Your task to perform on an android device: Go to privacy settings Image 0: 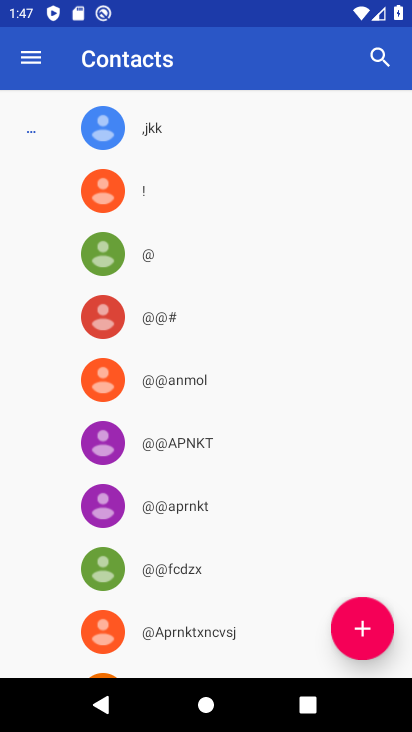
Step 0: press back button
Your task to perform on an android device: Go to privacy settings Image 1: 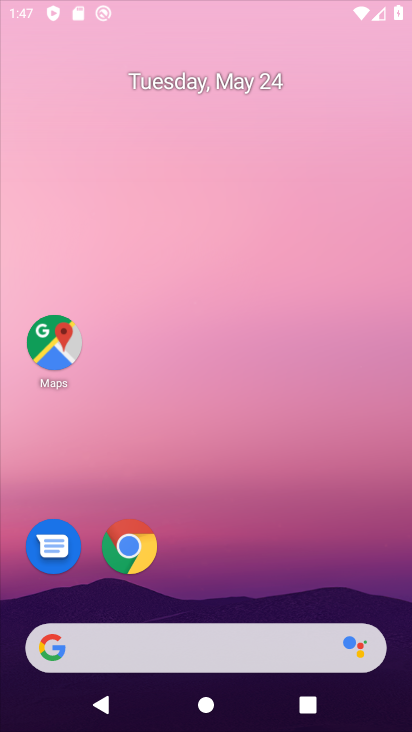
Step 1: press home button
Your task to perform on an android device: Go to privacy settings Image 2: 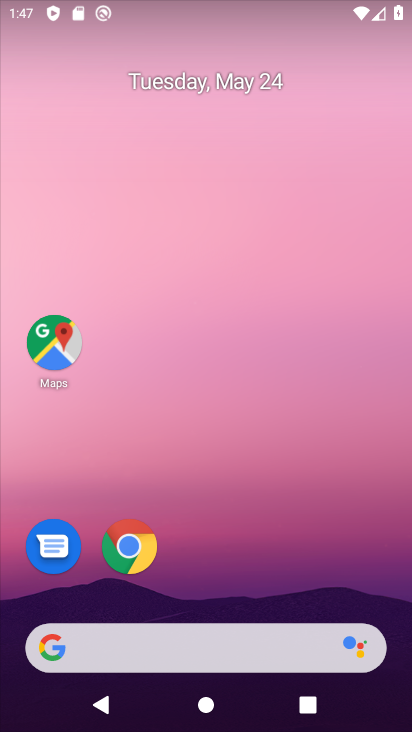
Step 2: click (119, 550)
Your task to perform on an android device: Go to privacy settings Image 3: 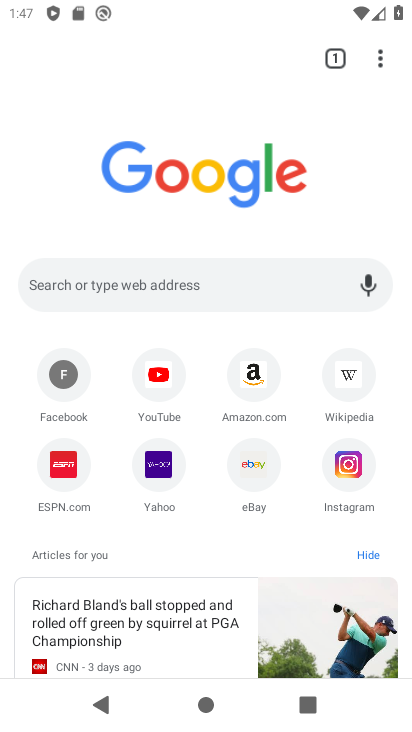
Step 3: drag from (380, 62) to (223, 497)
Your task to perform on an android device: Go to privacy settings Image 4: 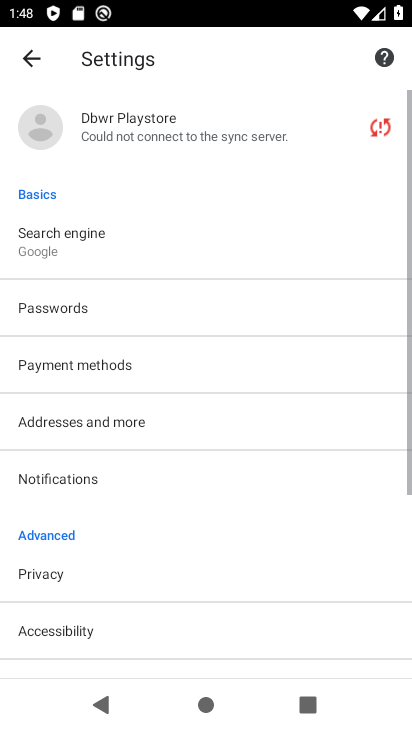
Step 4: click (96, 575)
Your task to perform on an android device: Go to privacy settings Image 5: 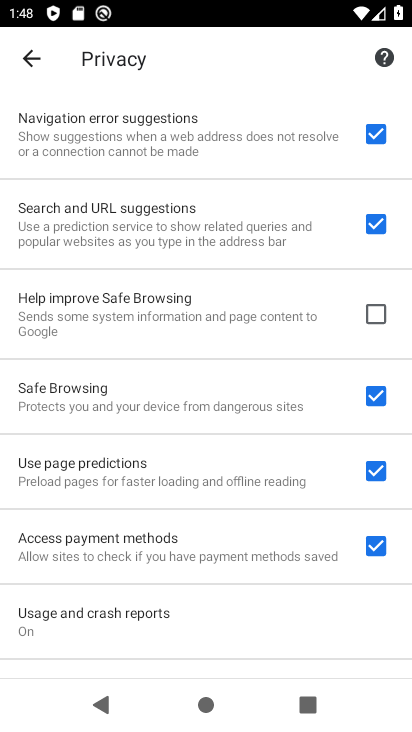
Step 5: task complete